Your task to perform on an android device: turn on improve location accuracy Image 0: 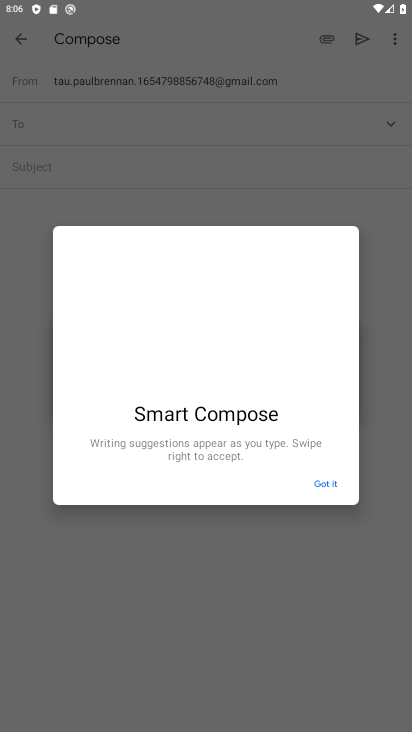
Step 0: press back button
Your task to perform on an android device: turn on improve location accuracy Image 1: 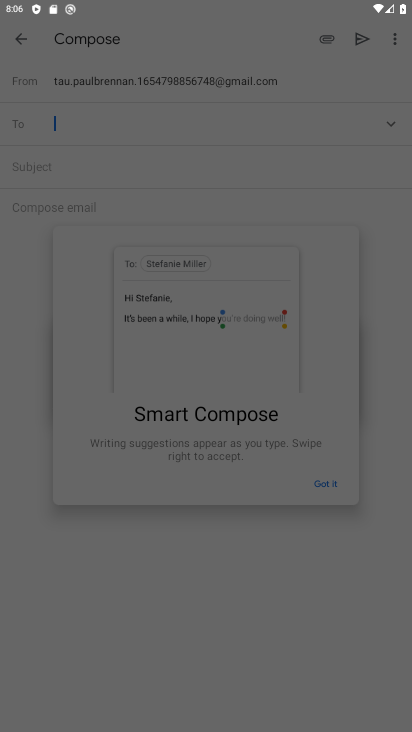
Step 1: click (333, 476)
Your task to perform on an android device: turn on improve location accuracy Image 2: 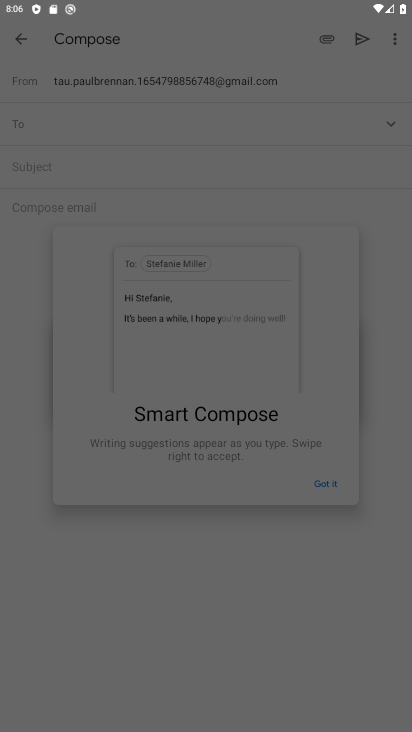
Step 2: click (334, 474)
Your task to perform on an android device: turn on improve location accuracy Image 3: 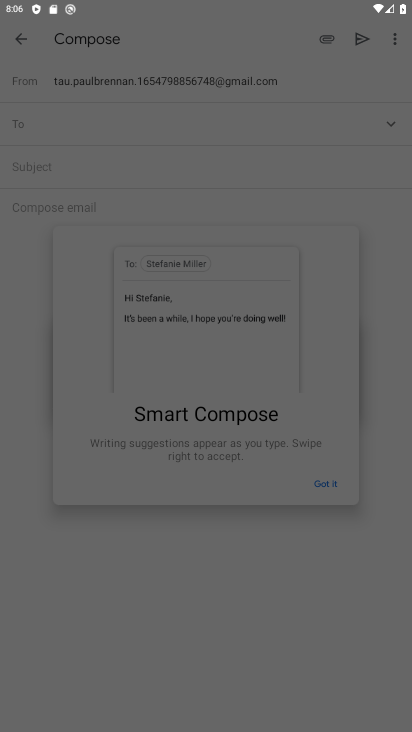
Step 3: press home button
Your task to perform on an android device: turn on improve location accuracy Image 4: 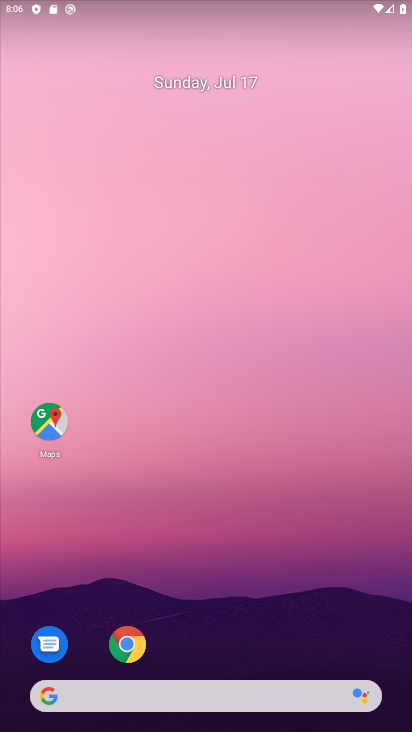
Step 4: drag from (203, 717) to (203, 217)
Your task to perform on an android device: turn on improve location accuracy Image 5: 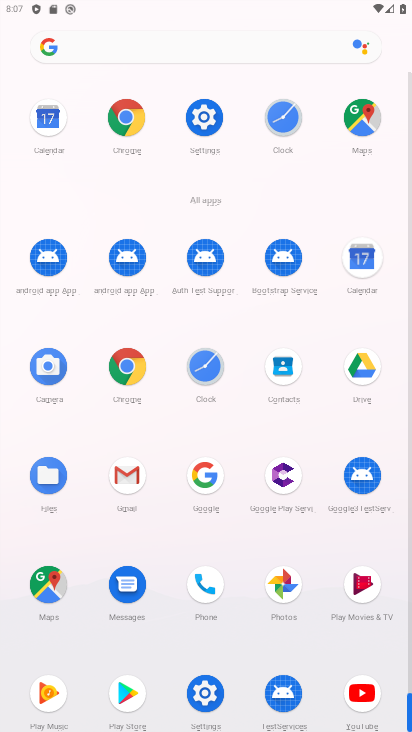
Step 5: click (192, 122)
Your task to perform on an android device: turn on improve location accuracy Image 6: 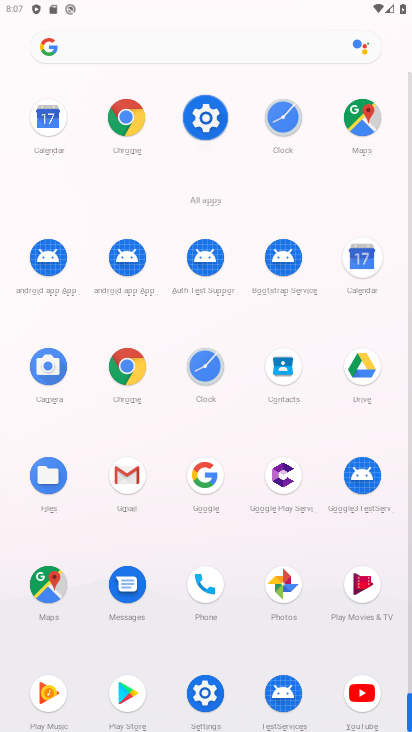
Step 6: click (198, 122)
Your task to perform on an android device: turn on improve location accuracy Image 7: 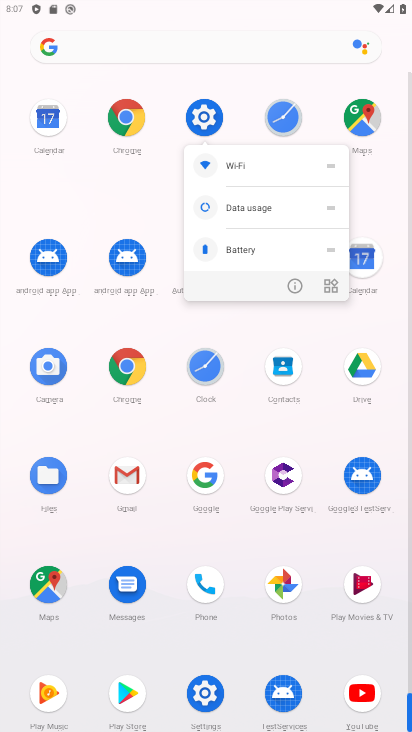
Step 7: click (202, 122)
Your task to perform on an android device: turn on improve location accuracy Image 8: 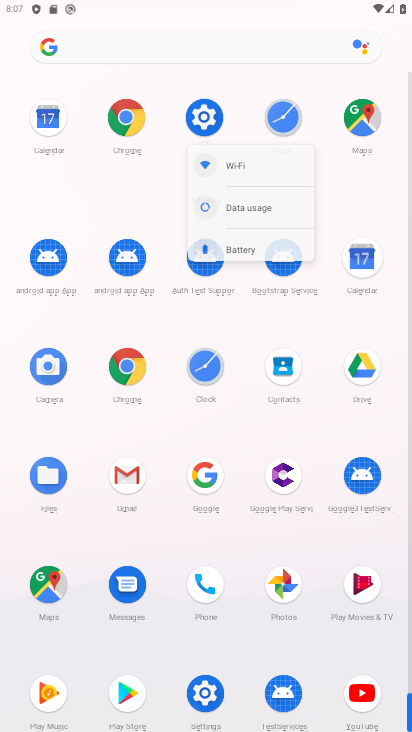
Step 8: click (203, 123)
Your task to perform on an android device: turn on improve location accuracy Image 9: 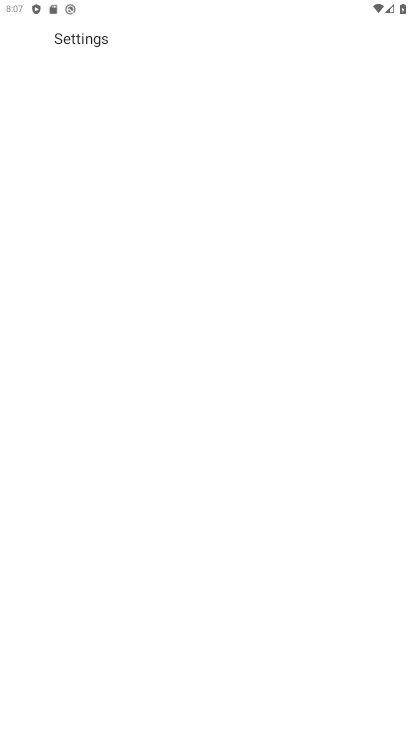
Step 9: click (204, 124)
Your task to perform on an android device: turn on improve location accuracy Image 10: 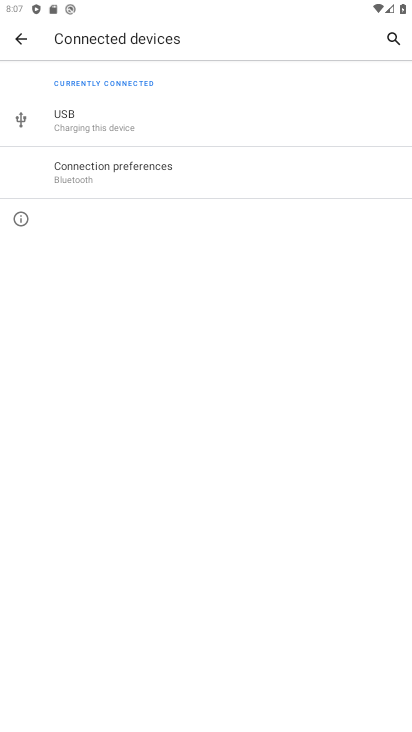
Step 10: click (21, 37)
Your task to perform on an android device: turn on improve location accuracy Image 11: 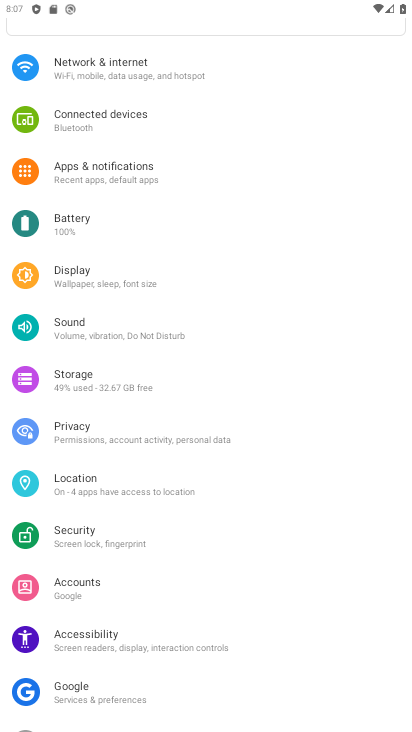
Step 11: click (99, 448)
Your task to perform on an android device: turn on improve location accuracy Image 12: 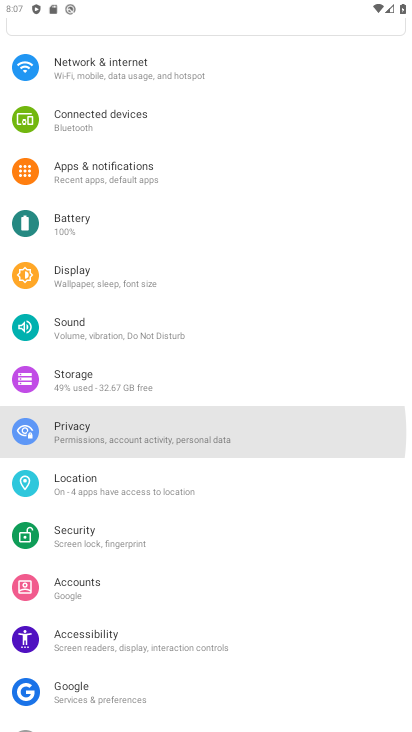
Step 12: click (93, 455)
Your task to perform on an android device: turn on improve location accuracy Image 13: 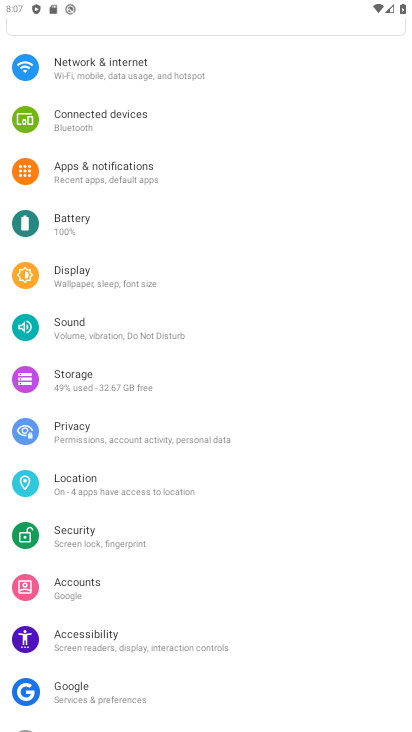
Step 13: click (102, 458)
Your task to perform on an android device: turn on improve location accuracy Image 14: 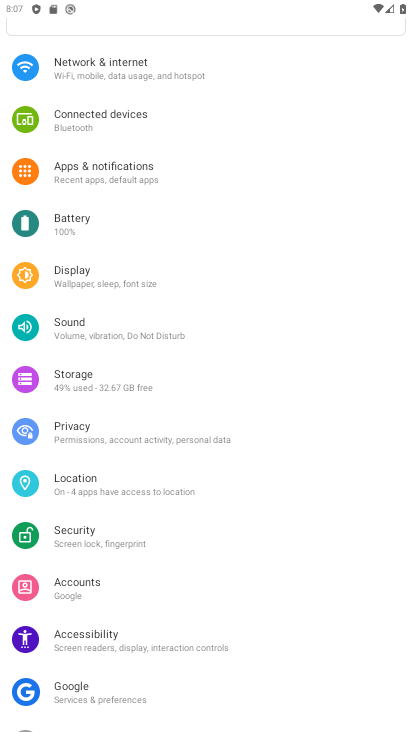
Step 14: click (110, 455)
Your task to perform on an android device: turn on improve location accuracy Image 15: 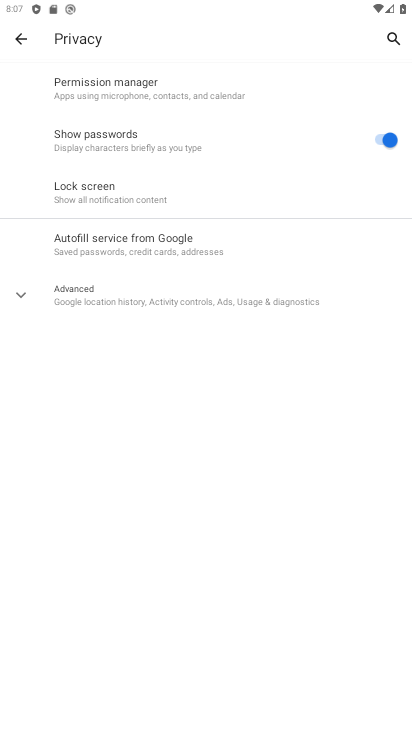
Step 15: click (13, 41)
Your task to perform on an android device: turn on improve location accuracy Image 16: 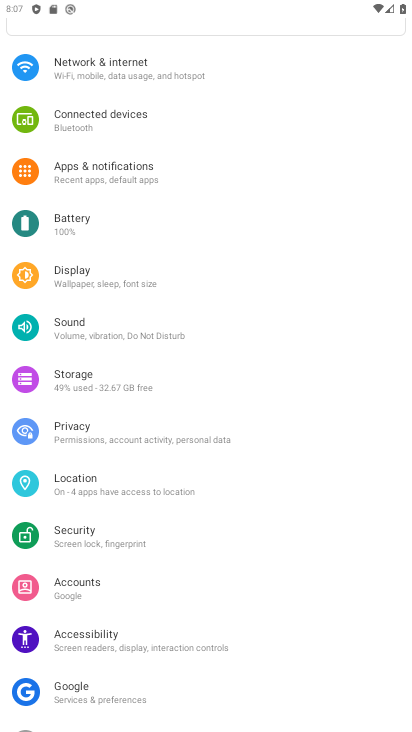
Step 16: click (88, 480)
Your task to perform on an android device: turn on improve location accuracy Image 17: 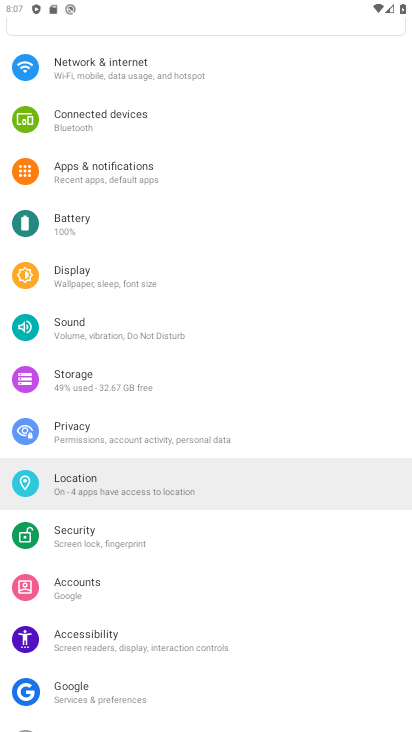
Step 17: click (88, 482)
Your task to perform on an android device: turn on improve location accuracy Image 18: 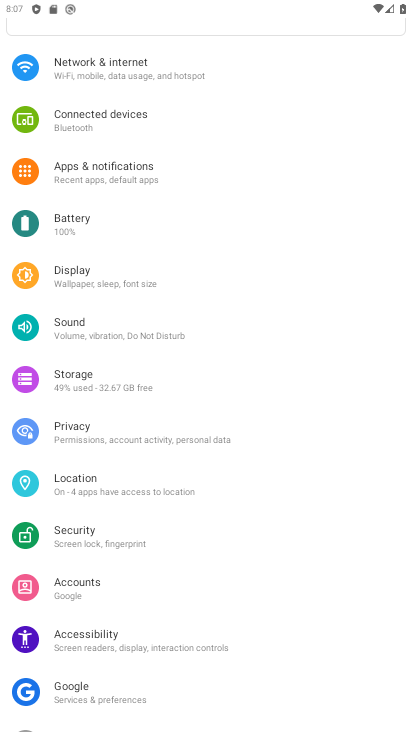
Step 18: click (90, 485)
Your task to perform on an android device: turn on improve location accuracy Image 19: 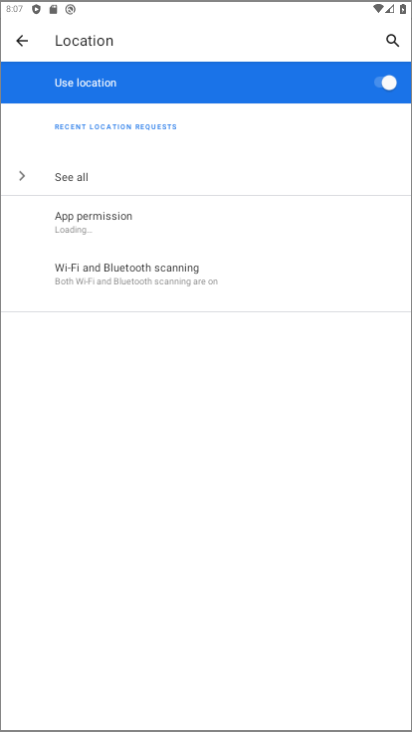
Step 19: click (90, 485)
Your task to perform on an android device: turn on improve location accuracy Image 20: 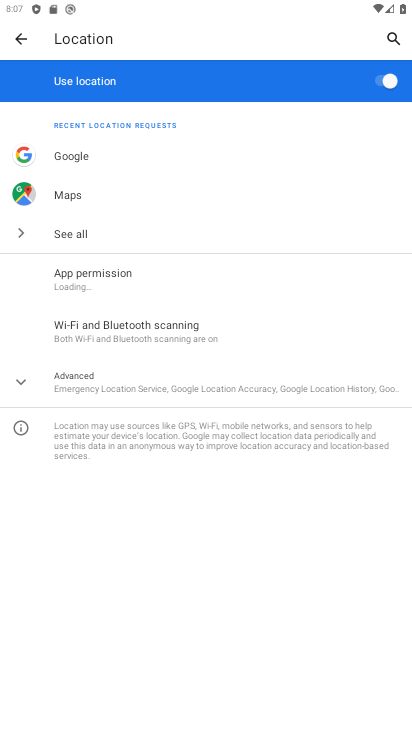
Step 20: click (74, 375)
Your task to perform on an android device: turn on improve location accuracy Image 21: 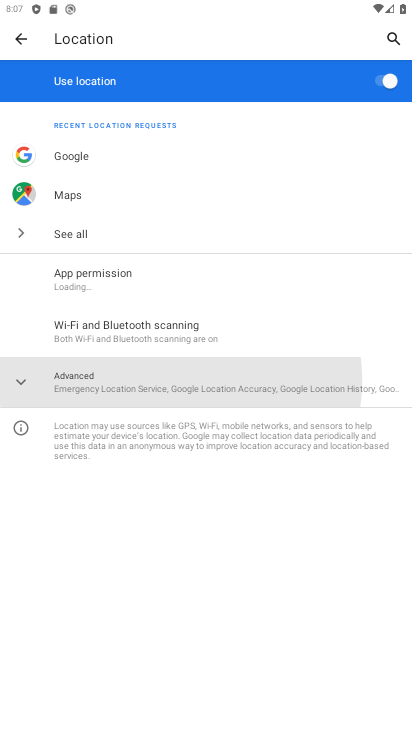
Step 21: click (77, 382)
Your task to perform on an android device: turn on improve location accuracy Image 22: 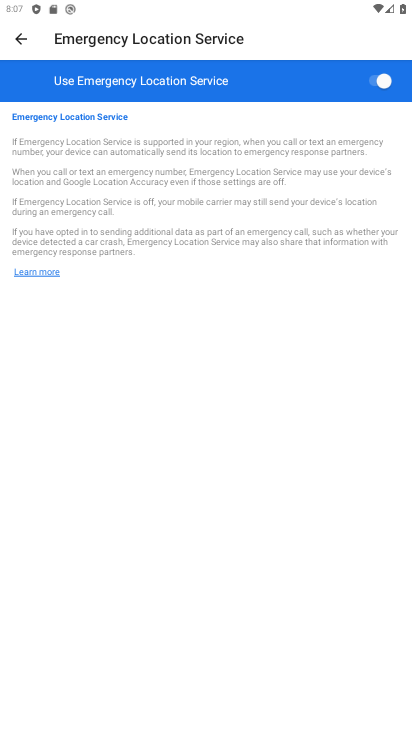
Step 22: click (16, 42)
Your task to perform on an android device: turn on improve location accuracy Image 23: 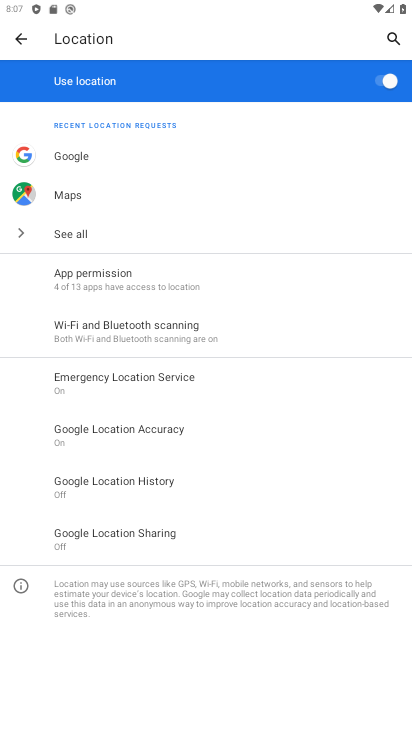
Step 23: click (135, 428)
Your task to perform on an android device: turn on improve location accuracy Image 24: 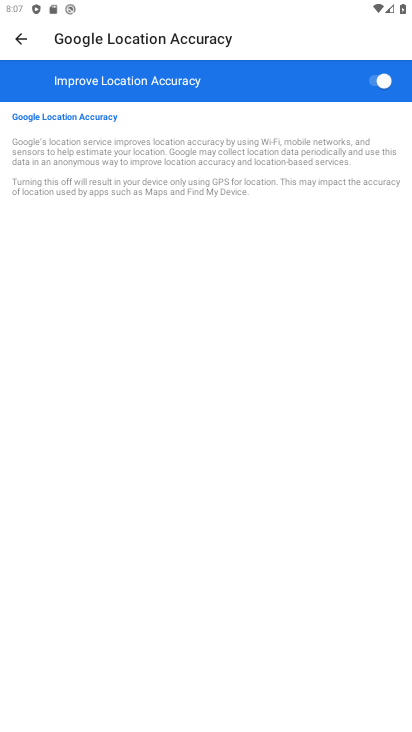
Step 24: task complete